Your task to perform on an android device: Go to CNN.com Image 0: 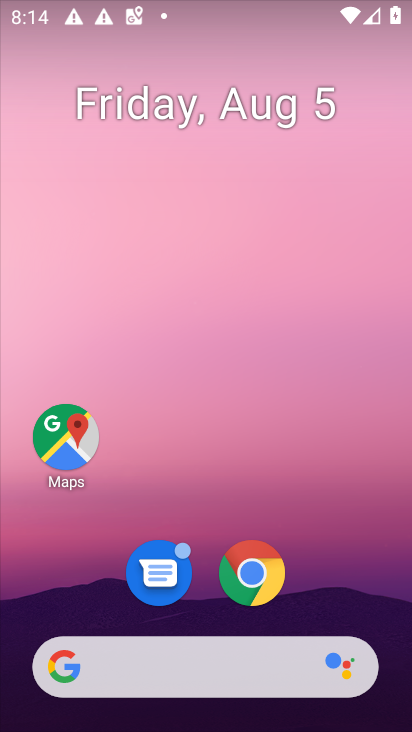
Step 0: click (256, 573)
Your task to perform on an android device: Go to CNN.com Image 1: 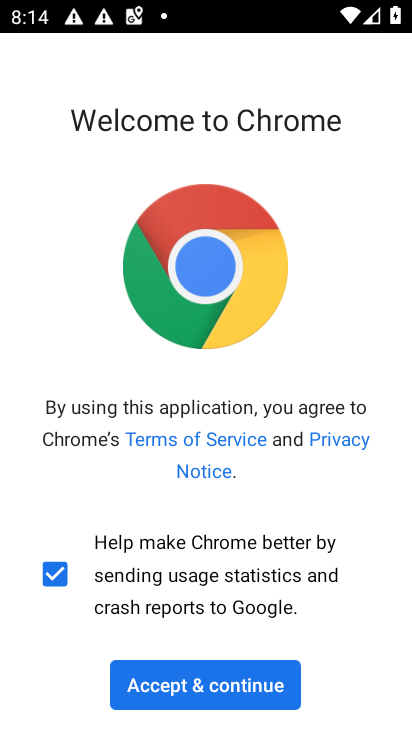
Step 1: click (228, 694)
Your task to perform on an android device: Go to CNN.com Image 2: 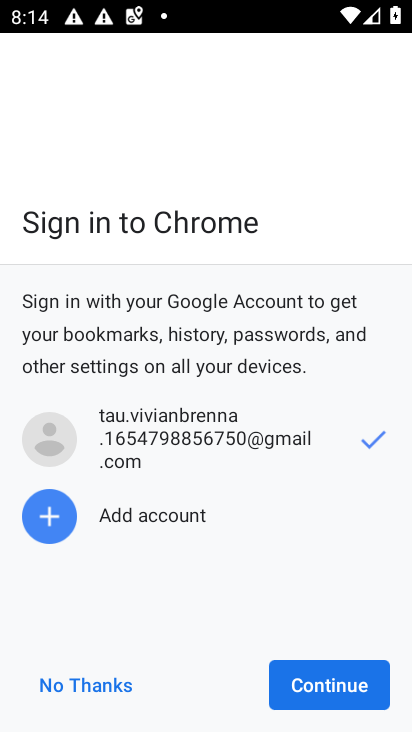
Step 2: click (336, 685)
Your task to perform on an android device: Go to CNN.com Image 3: 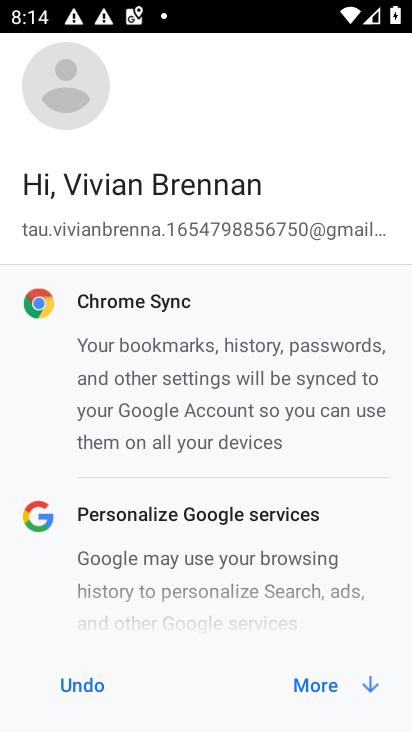
Step 3: click (336, 685)
Your task to perform on an android device: Go to CNN.com Image 4: 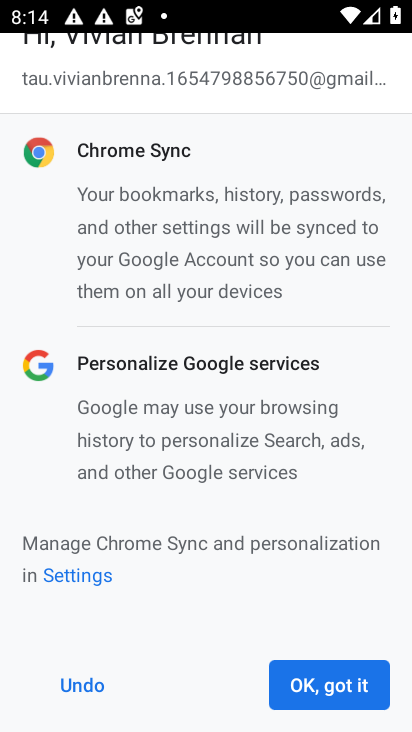
Step 4: click (336, 685)
Your task to perform on an android device: Go to CNN.com Image 5: 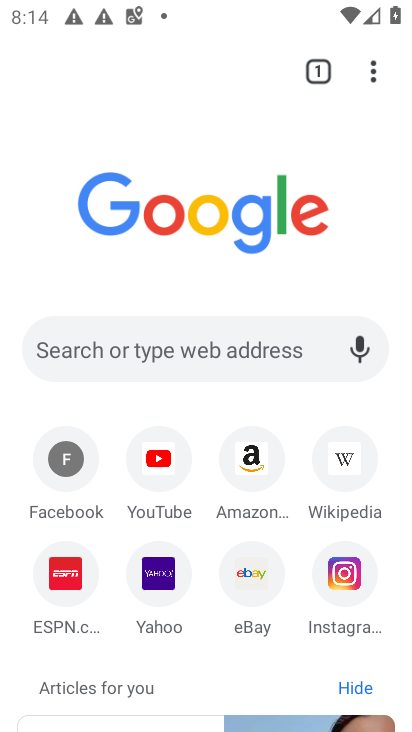
Step 5: click (222, 341)
Your task to perform on an android device: Go to CNN.com Image 6: 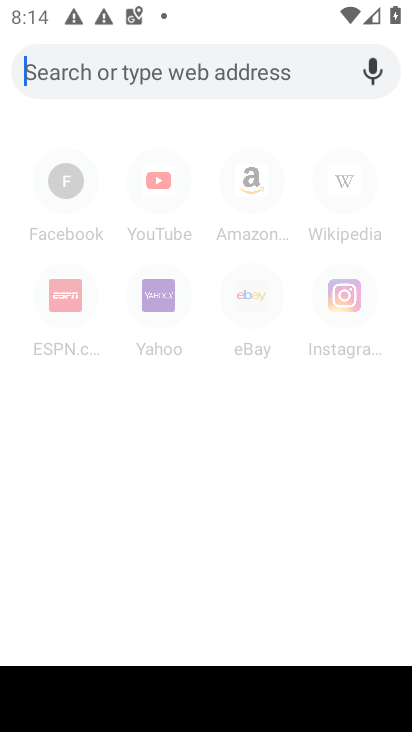
Step 6: type "CNN.com"
Your task to perform on an android device: Go to CNN.com Image 7: 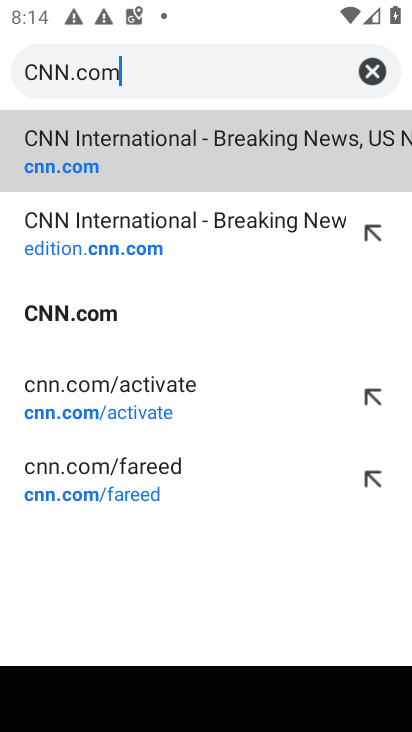
Step 7: click (99, 320)
Your task to perform on an android device: Go to CNN.com Image 8: 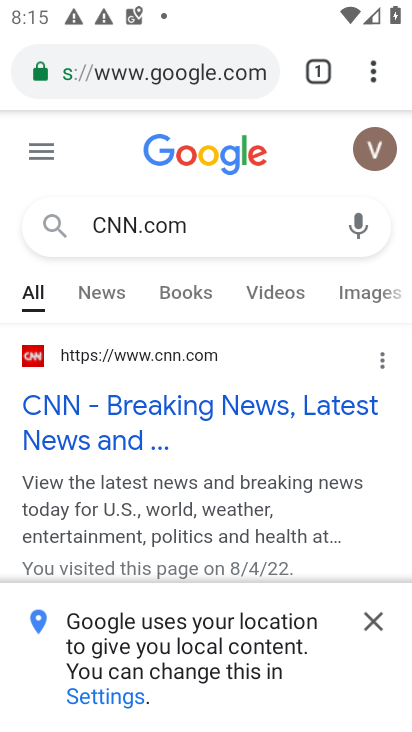
Step 8: click (111, 428)
Your task to perform on an android device: Go to CNN.com Image 9: 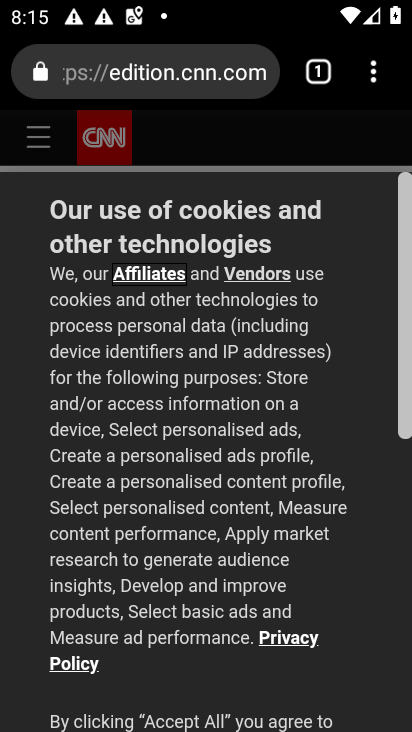
Step 9: task complete